Your task to perform on an android device: Open the Play Movies app and select the watchlist tab. Image 0: 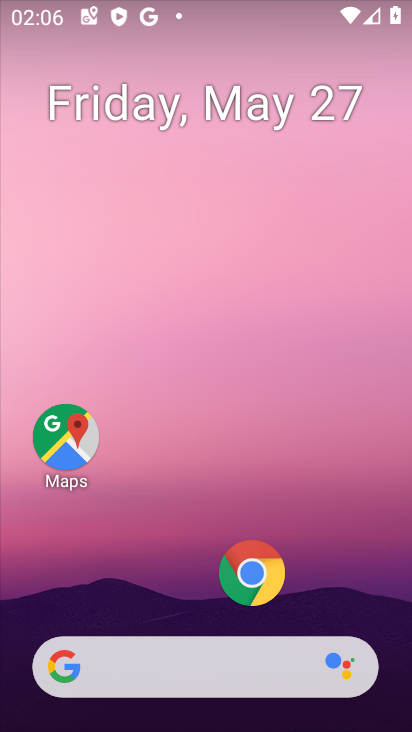
Step 0: drag from (216, 620) to (148, 83)
Your task to perform on an android device: Open the Play Movies app and select the watchlist tab. Image 1: 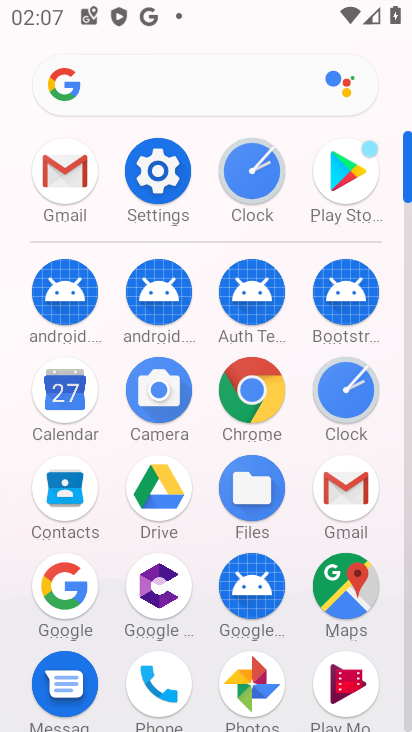
Step 1: click (346, 670)
Your task to perform on an android device: Open the Play Movies app and select the watchlist tab. Image 2: 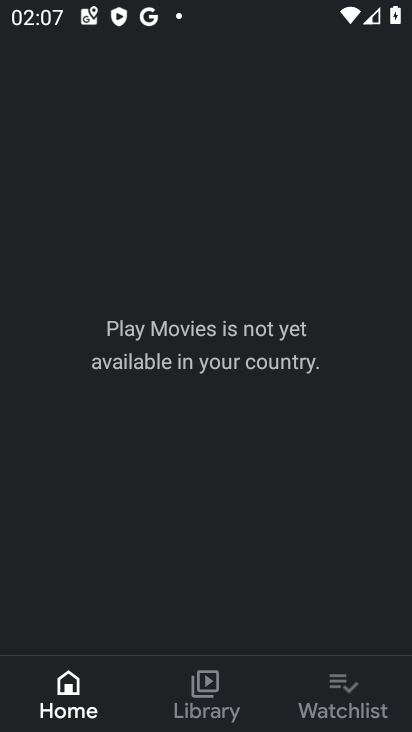
Step 2: click (368, 678)
Your task to perform on an android device: Open the Play Movies app and select the watchlist tab. Image 3: 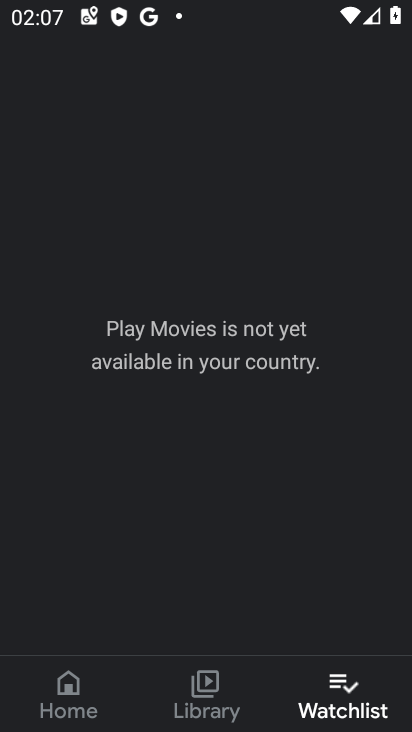
Step 3: task complete